Your task to perform on an android device: Search for seafood restaurants on Google Maps Image 0: 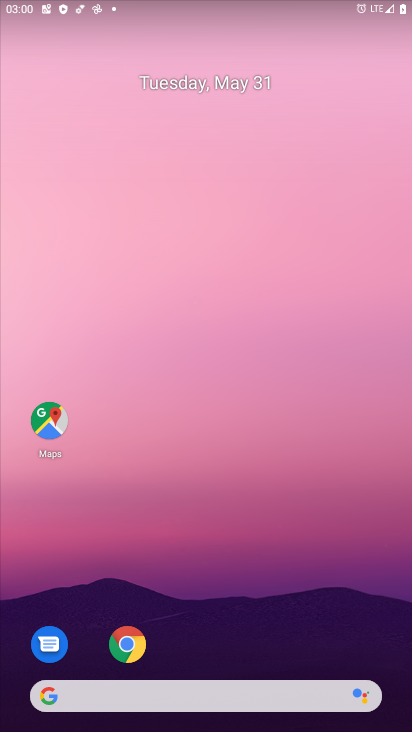
Step 0: click (46, 425)
Your task to perform on an android device: Search for seafood restaurants on Google Maps Image 1: 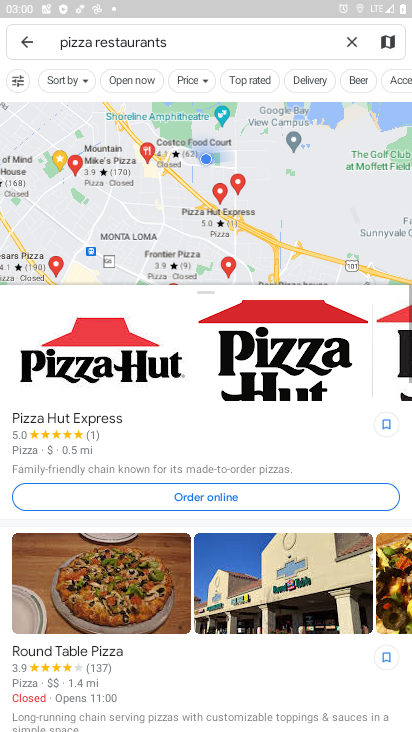
Step 1: click (198, 43)
Your task to perform on an android device: Search for seafood restaurants on Google Maps Image 2: 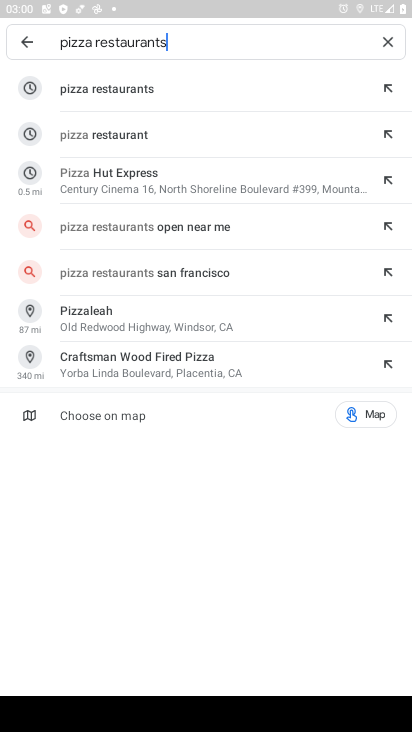
Step 2: click (392, 41)
Your task to perform on an android device: Search for seafood restaurants on Google Maps Image 3: 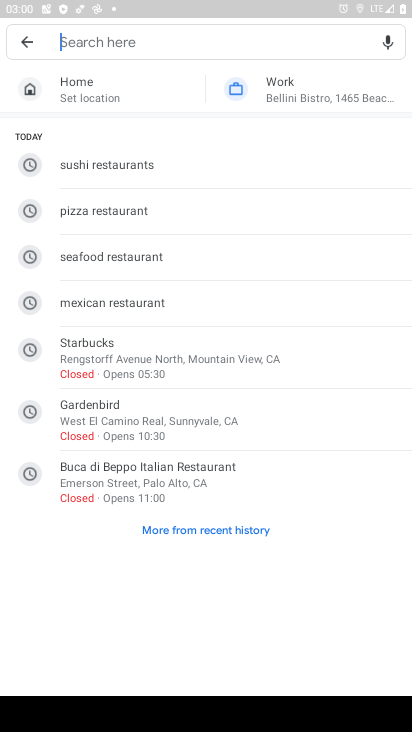
Step 3: type "seafood restaurants"
Your task to perform on an android device: Search for seafood restaurants on Google Maps Image 4: 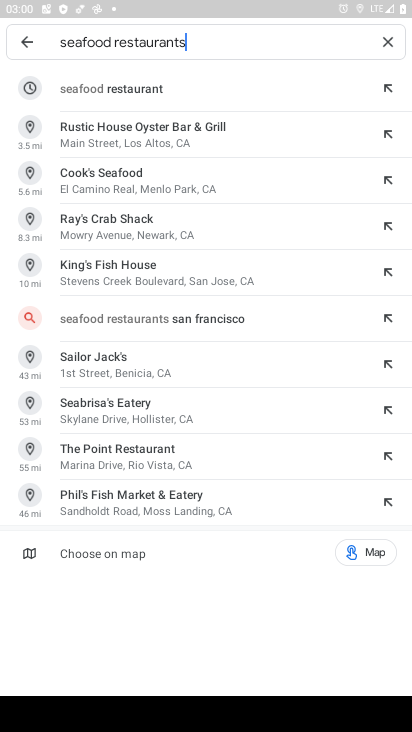
Step 4: press enter
Your task to perform on an android device: Search for seafood restaurants on Google Maps Image 5: 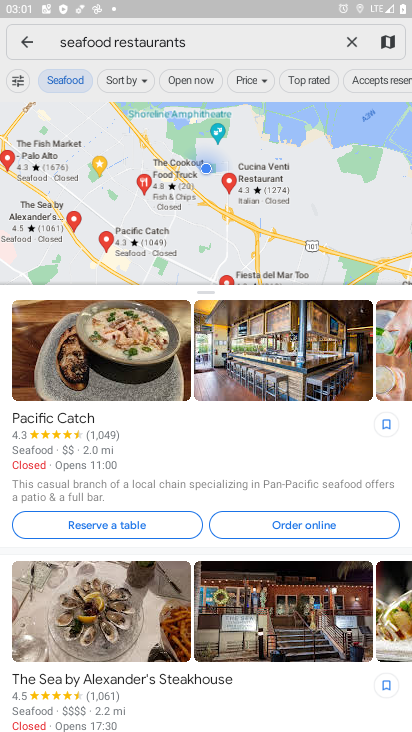
Step 5: task complete